Your task to perform on an android device: Search for Italian restaurants on Maps Image 0: 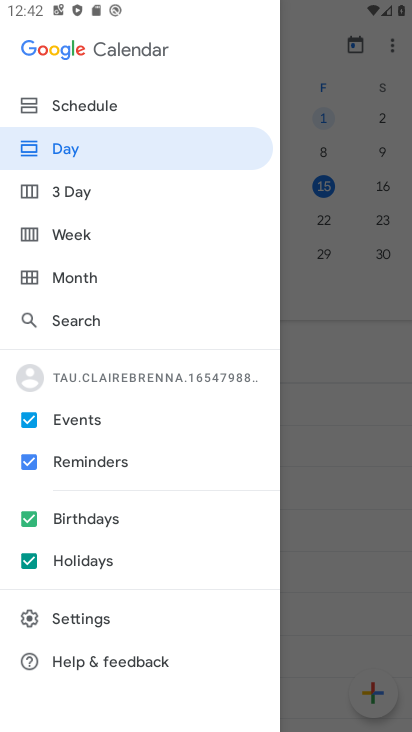
Step 0: drag from (9, 699) to (223, 194)
Your task to perform on an android device: Search for Italian restaurants on Maps Image 1: 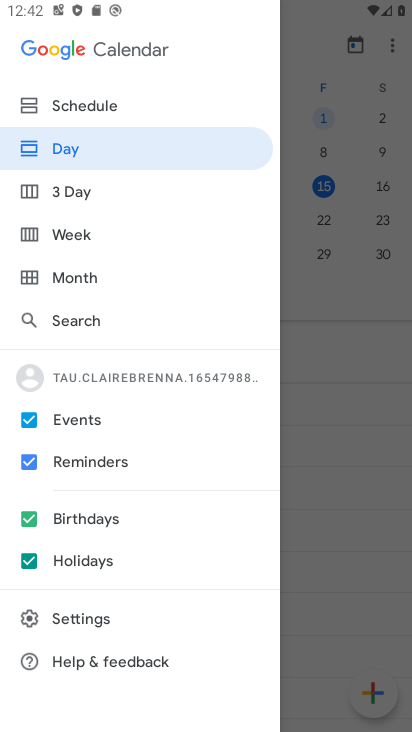
Step 1: press home button
Your task to perform on an android device: Search for Italian restaurants on Maps Image 2: 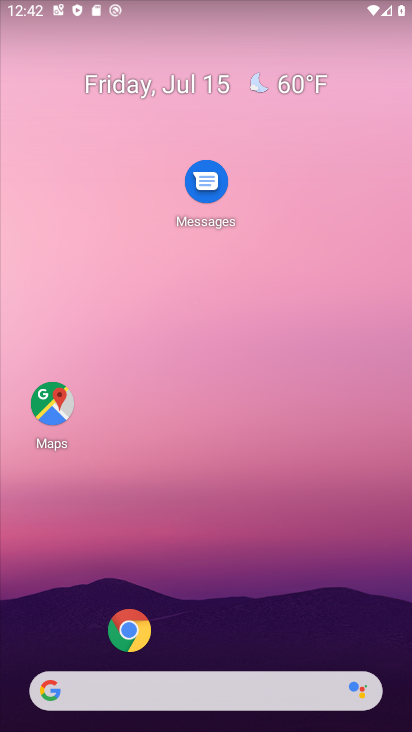
Step 2: click (28, 399)
Your task to perform on an android device: Search for Italian restaurants on Maps Image 3: 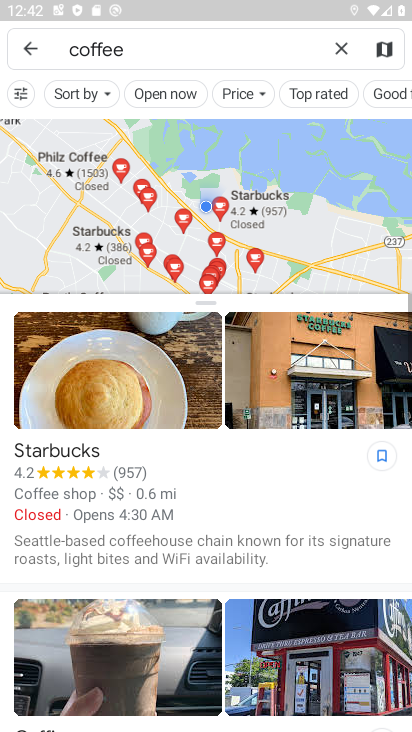
Step 3: click (336, 44)
Your task to perform on an android device: Search for Italian restaurants on Maps Image 4: 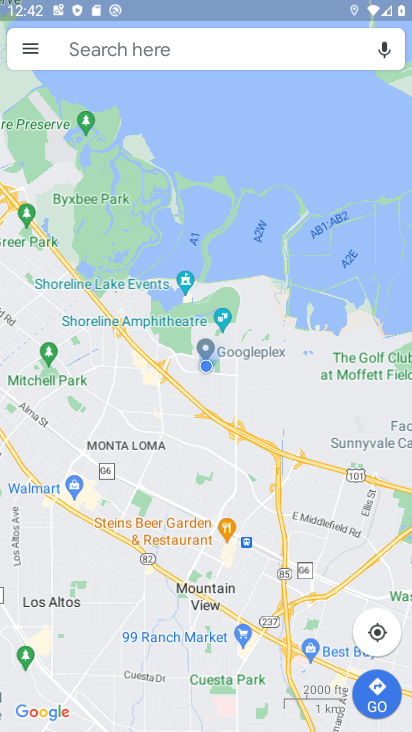
Step 4: click (74, 53)
Your task to perform on an android device: Search for Italian restaurants on Maps Image 5: 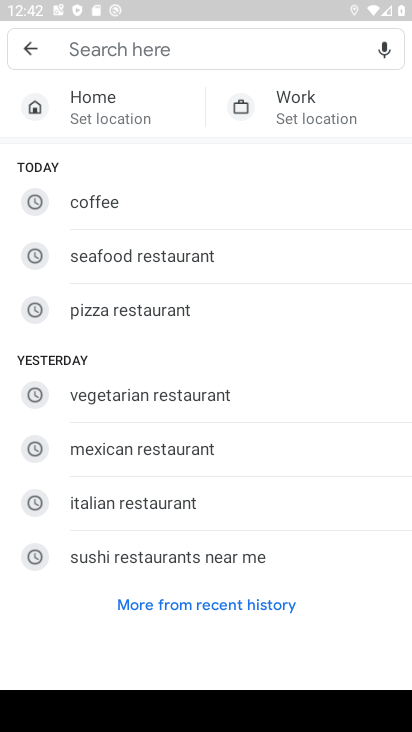
Step 5: click (109, 496)
Your task to perform on an android device: Search for Italian restaurants on Maps Image 6: 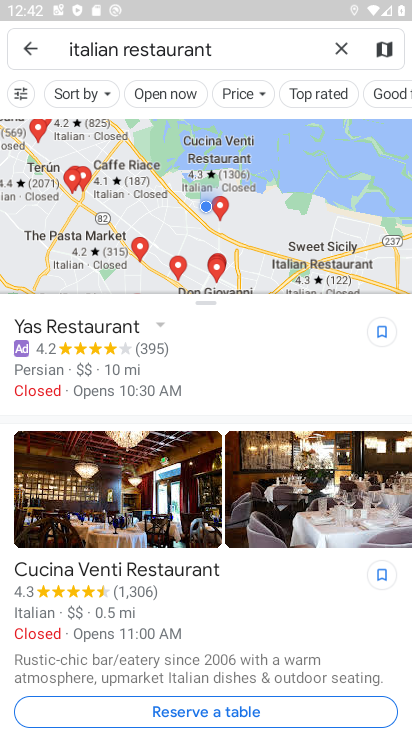
Step 6: task complete